Your task to perform on an android device: Open privacy settings Image 0: 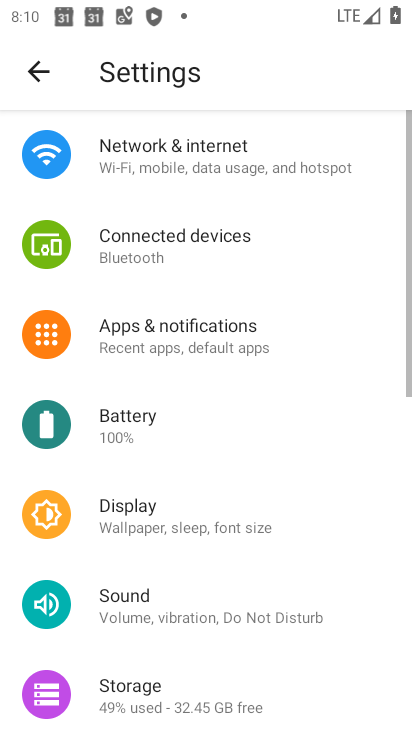
Step 0: drag from (206, 490) to (203, 248)
Your task to perform on an android device: Open privacy settings Image 1: 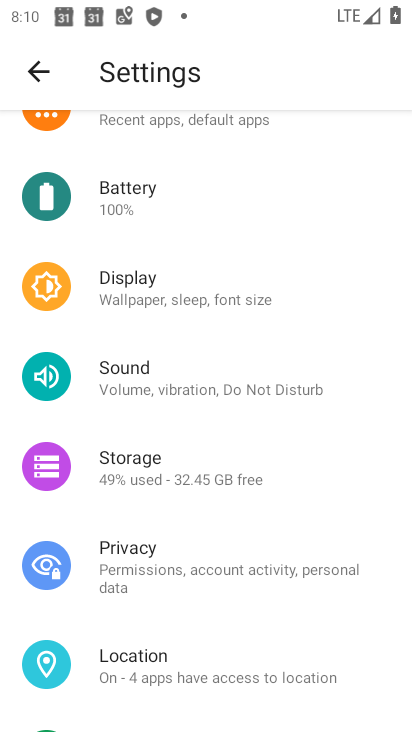
Step 1: click (123, 549)
Your task to perform on an android device: Open privacy settings Image 2: 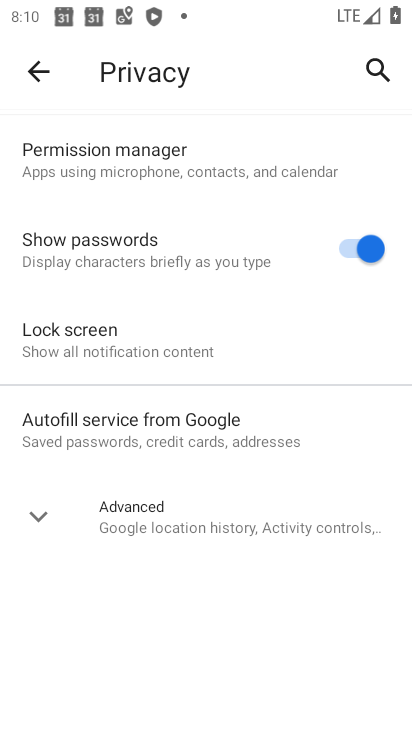
Step 2: task complete